Your task to perform on an android device: change the clock display to analog Image 0: 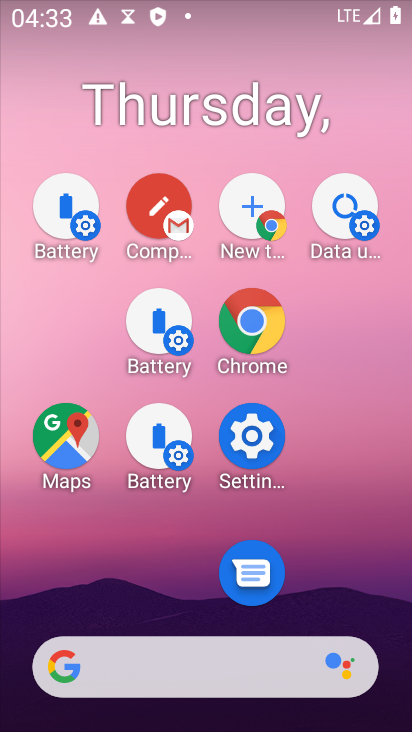
Step 0: drag from (305, 472) to (290, 360)
Your task to perform on an android device: change the clock display to analog Image 1: 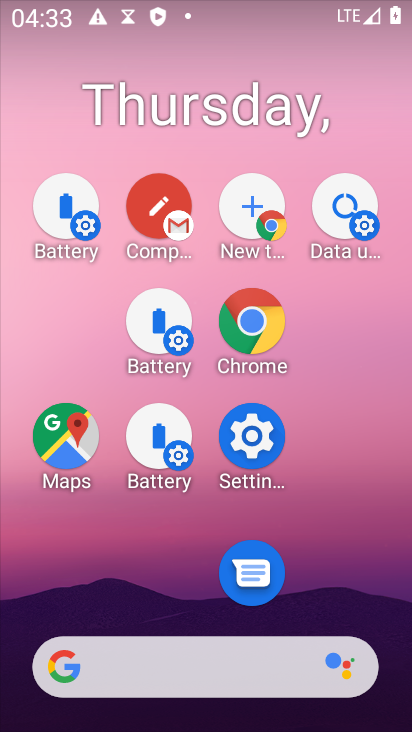
Step 1: drag from (270, 633) to (289, 324)
Your task to perform on an android device: change the clock display to analog Image 2: 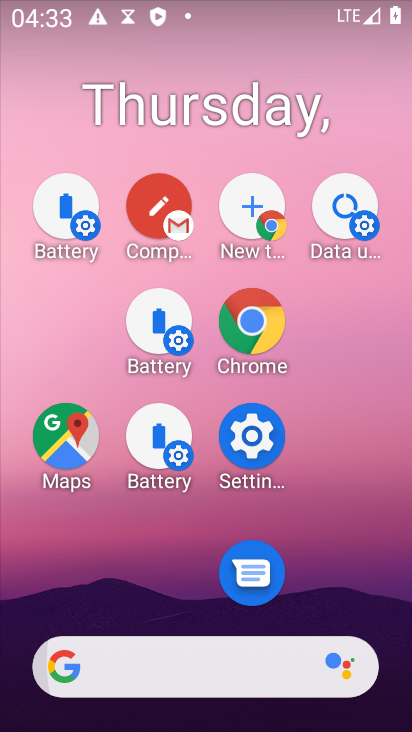
Step 2: drag from (278, 631) to (279, 158)
Your task to perform on an android device: change the clock display to analog Image 3: 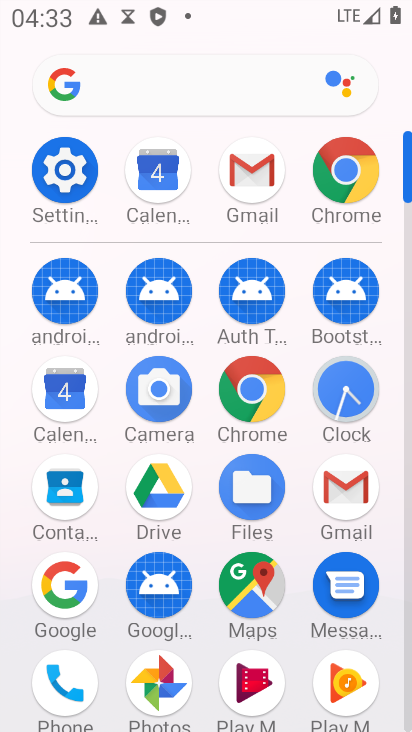
Step 3: click (342, 396)
Your task to perform on an android device: change the clock display to analog Image 4: 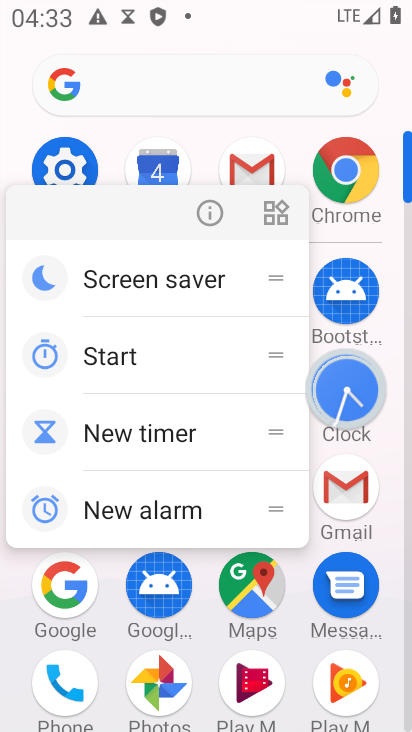
Step 4: click (343, 397)
Your task to perform on an android device: change the clock display to analog Image 5: 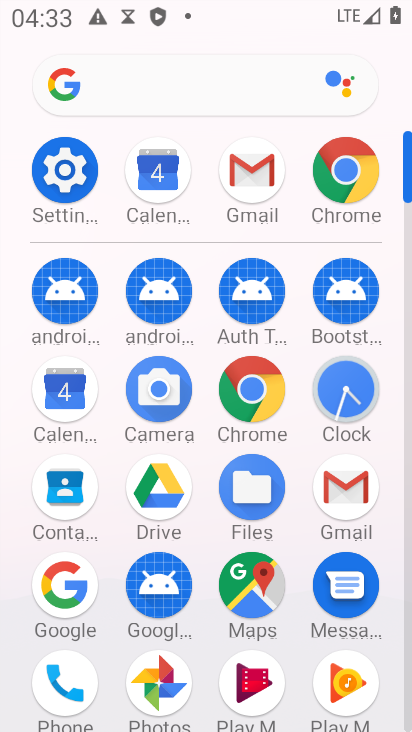
Step 5: click (343, 397)
Your task to perform on an android device: change the clock display to analog Image 6: 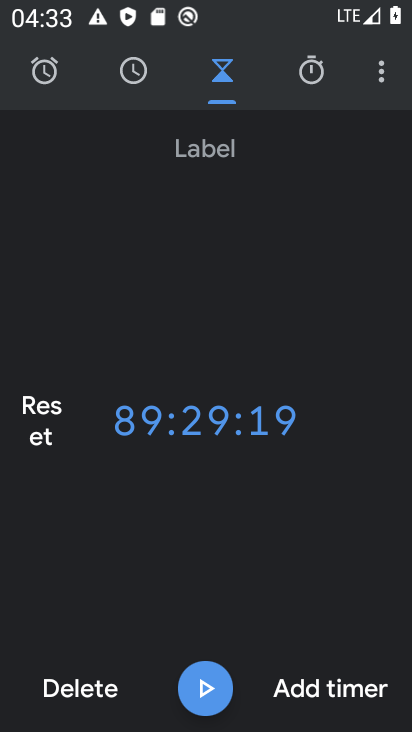
Step 6: click (378, 71)
Your task to perform on an android device: change the clock display to analog Image 7: 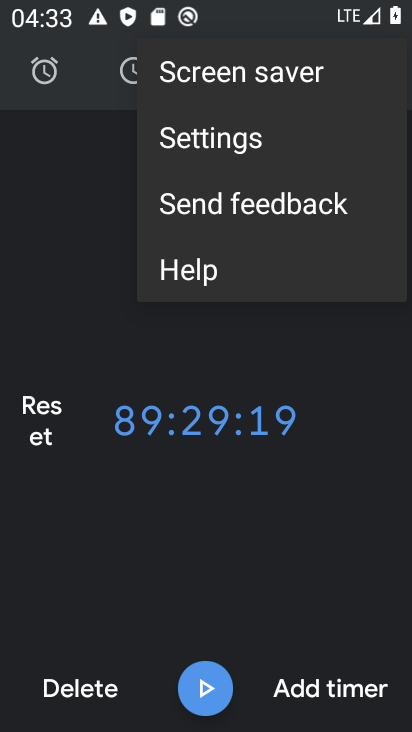
Step 7: click (228, 129)
Your task to perform on an android device: change the clock display to analog Image 8: 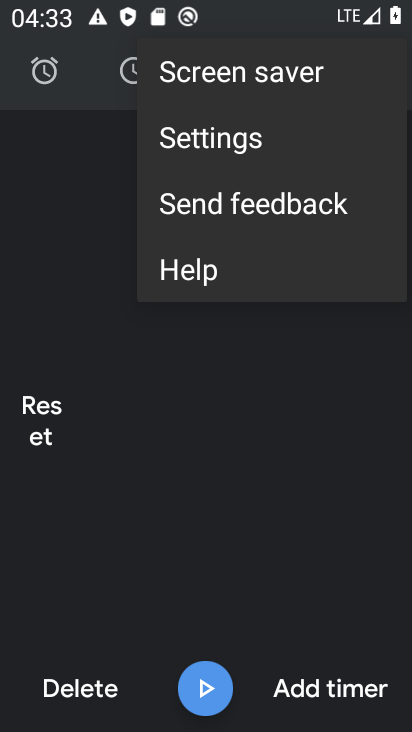
Step 8: click (231, 132)
Your task to perform on an android device: change the clock display to analog Image 9: 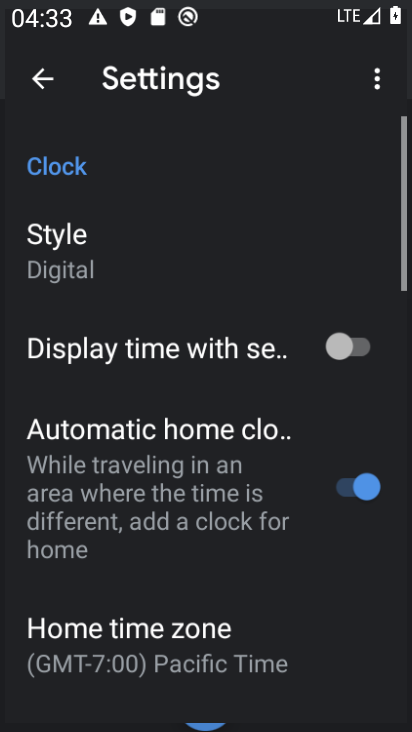
Step 9: click (232, 133)
Your task to perform on an android device: change the clock display to analog Image 10: 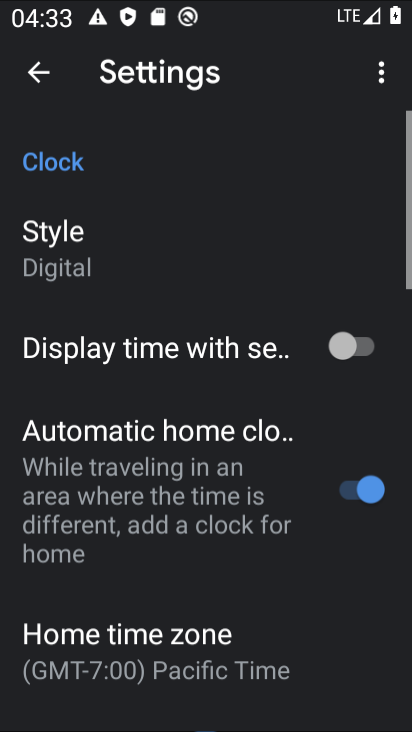
Step 10: click (233, 133)
Your task to perform on an android device: change the clock display to analog Image 11: 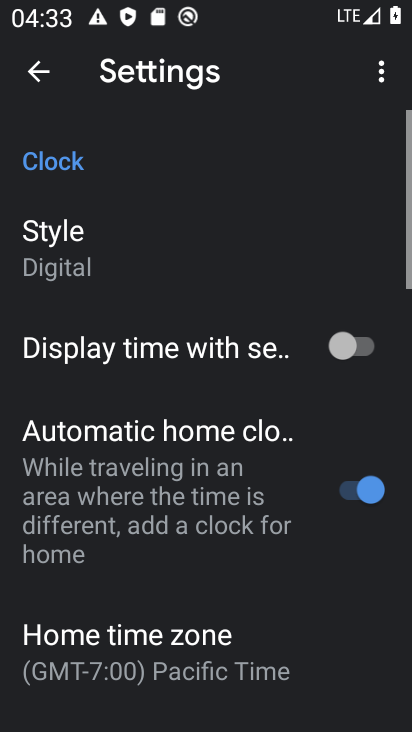
Step 11: click (234, 132)
Your task to perform on an android device: change the clock display to analog Image 12: 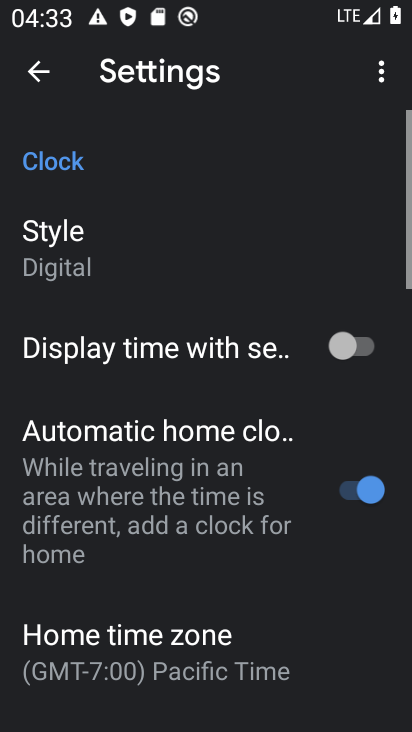
Step 12: click (235, 135)
Your task to perform on an android device: change the clock display to analog Image 13: 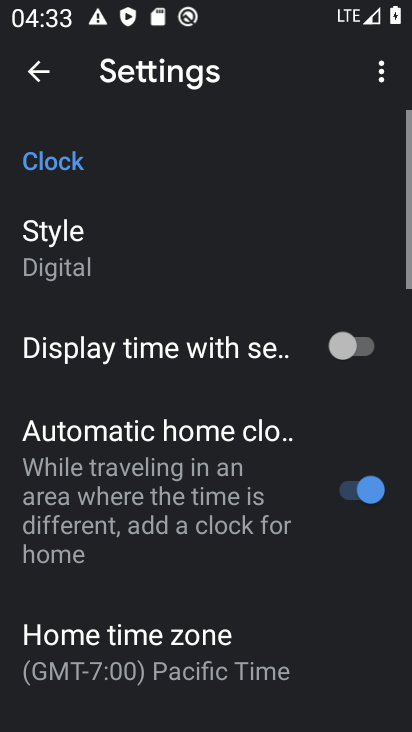
Step 13: click (128, 247)
Your task to perform on an android device: change the clock display to analog Image 14: 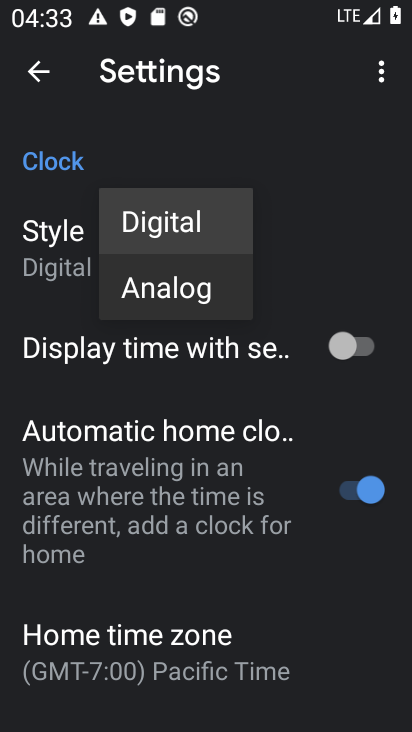
Step 14: click (165, 290)
Your task to perform on an android device: change the clock display to analog Image 15: 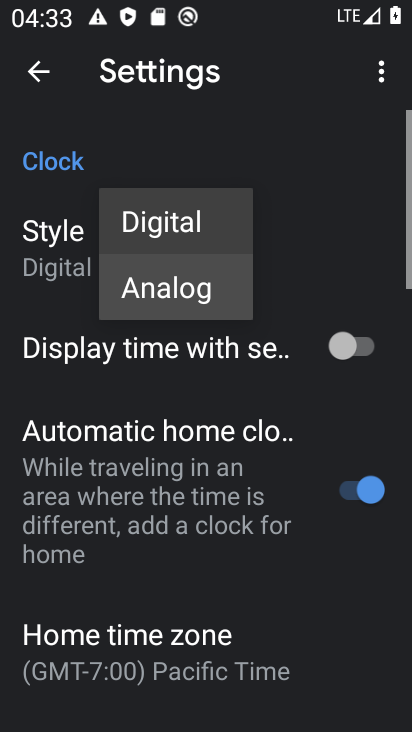
Step 15: click (166, 288)
Your task to perform on an android device: change the clock display to analog Image 16: 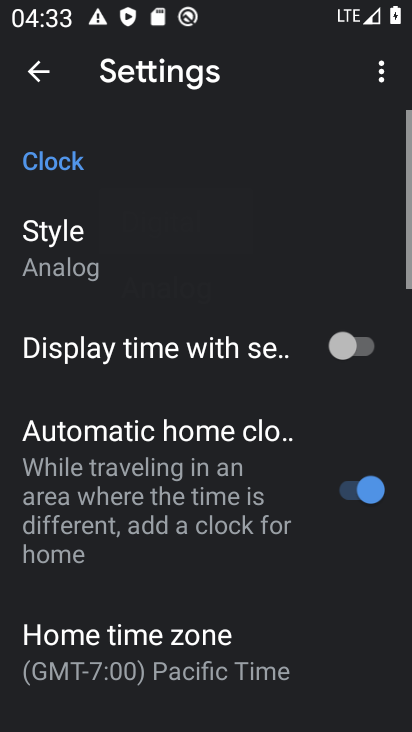
Step 16: click (168, 286)
Your task to perform on an android device: change the clock display to analog Image 17: 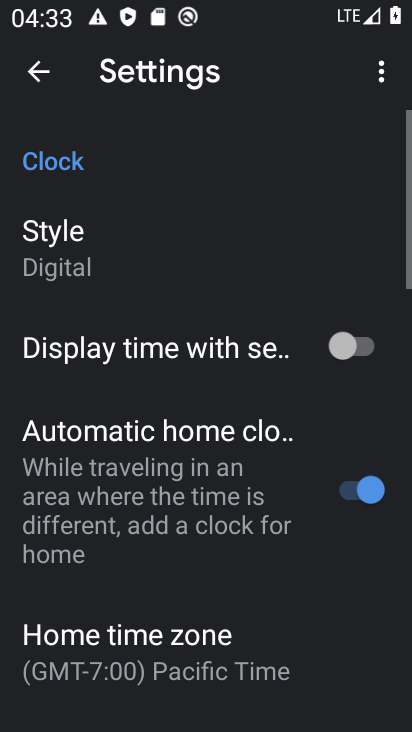
Step 17: task complete